Your task to perform on an android device: Open Google Chrome and click the shortcut for Amazon.com Image 0: 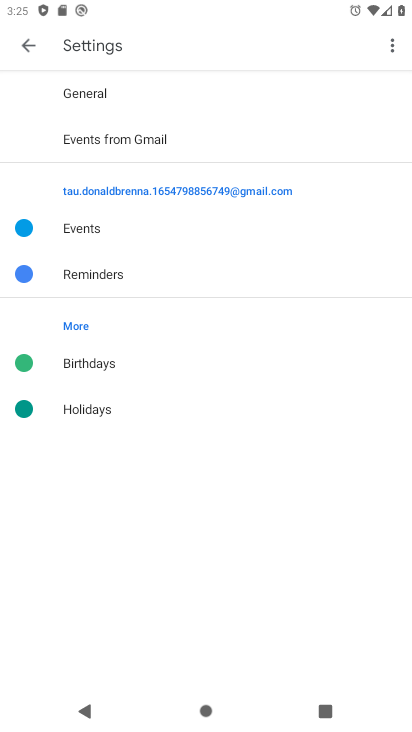
Step 0: press home button
Your task to perform on an android device: Open Google Chrome and click the shortcut for Amazon.com Image 1: 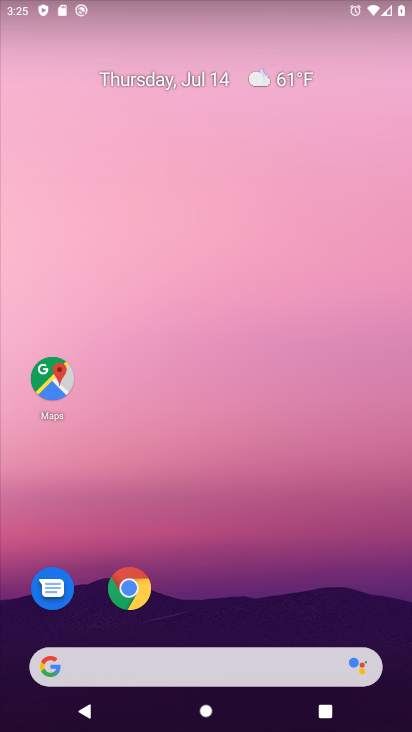
Step 1: click (137, 590)
Your task to perform on an android device: Open Google Chrome and click the shortcut for Amazon.com Image 2: 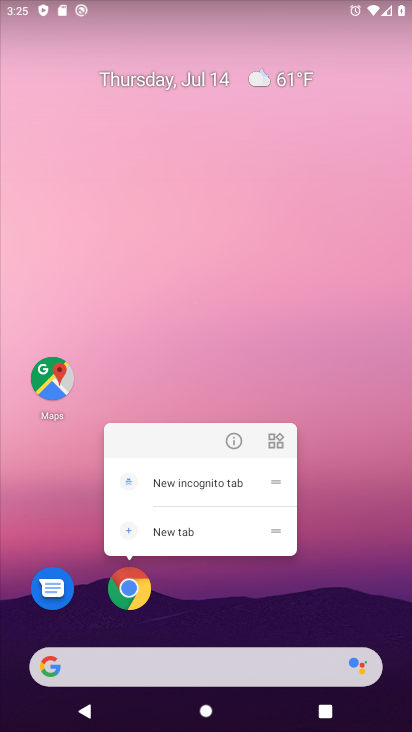
Step 2: click (135, 585)
Your task to perform on an android device: Open Google Chrome and click the shortcut for Amazon.com Image 3: 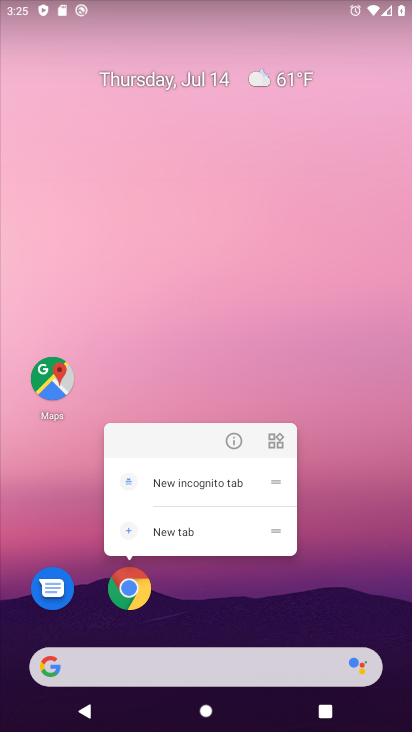
Step 3: click (135, 585)
Your task to perform on an android device: Open Google Chrome and click the shortcut for Amazon.com Image 4: 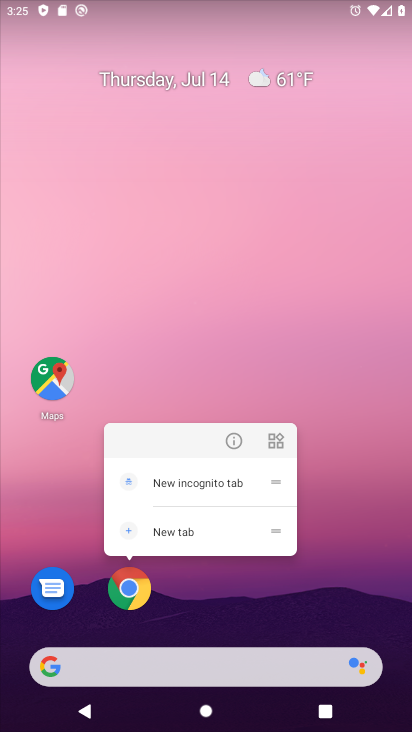
Step 4: click (123, 603)
Your task to perform on an android device: Open Google Chrome and click the shortcut for Amazon.com Image 5: 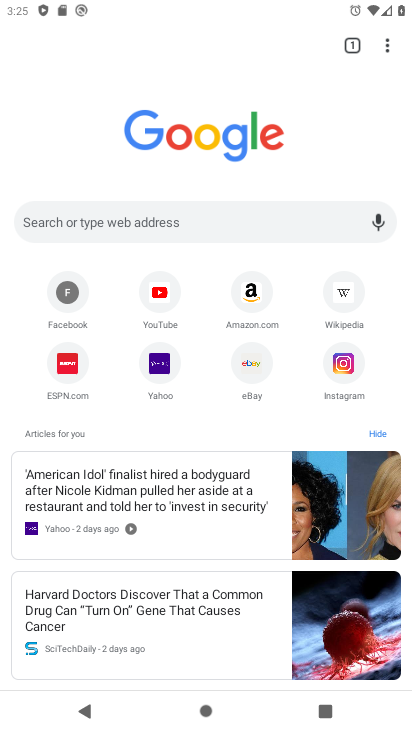
Step 5: click (251, 288)
Your task to perform on an android device: Open Google Chrome and click the shortcut for Amazon.com Image 6: 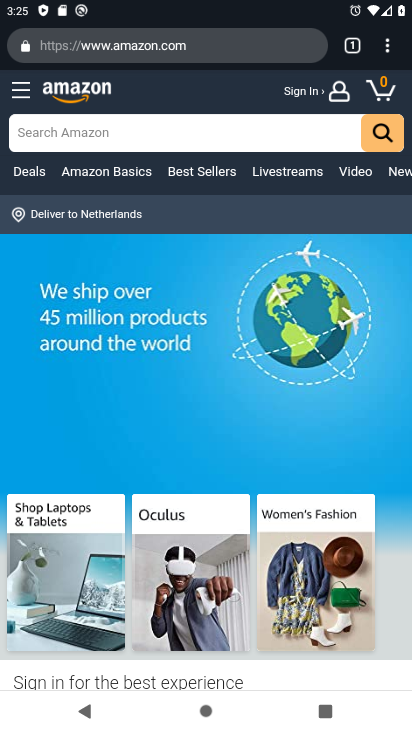
Step 6: task complete